Your task to perform on an android device: Go to Google maps Image 0: 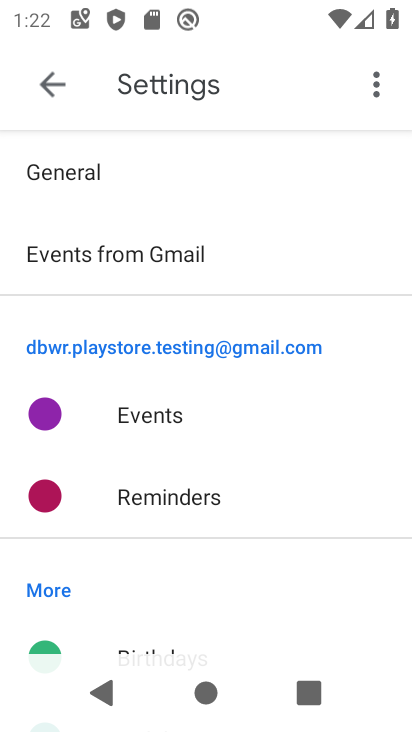
Step 0: press home button
Your task to perform on an android device: Go to Google maps Image 1: 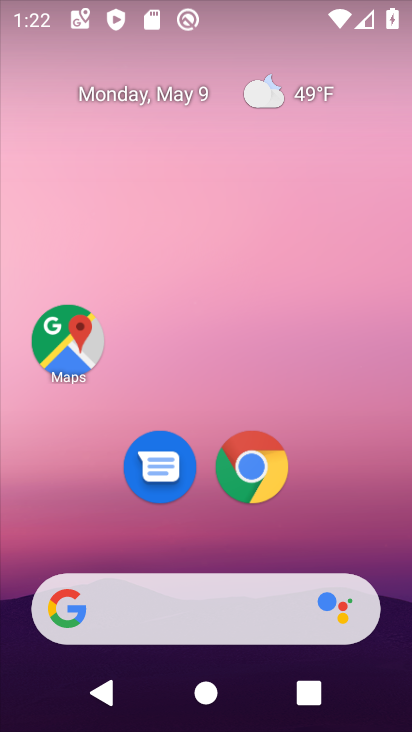
Step 1: drag from (363, 536) to (361, 151)
Your task to perform on an android device: Go to Google maps Image 2: 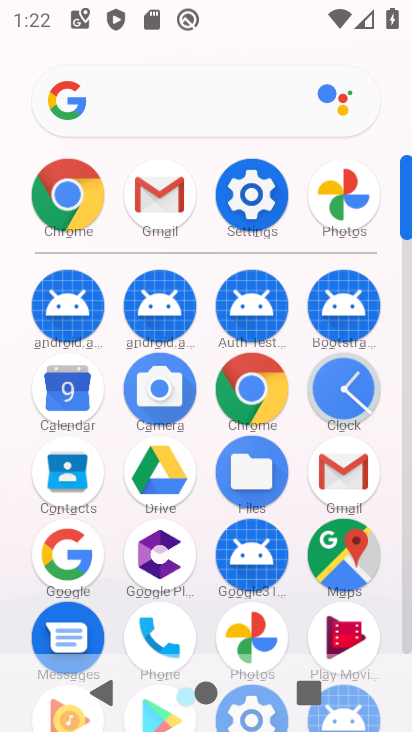
Step 2: click (337, 562)
Your task to perform on an android device: Go to Google maps Image 3: 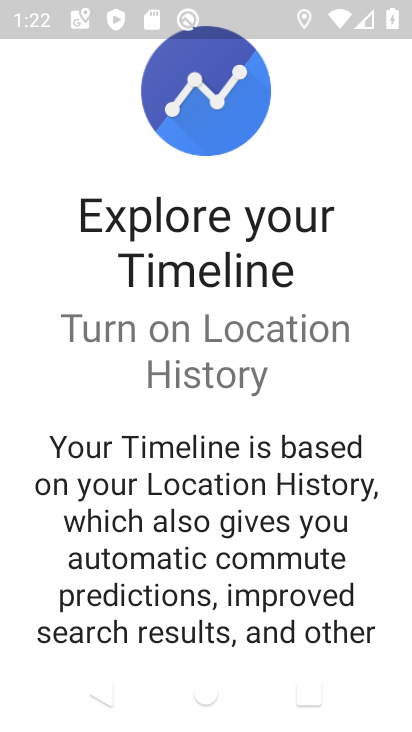
Step 3: task complete